Your task to perform on an android device: open app "Firefox Browser" (install if not already installed) Image 0: 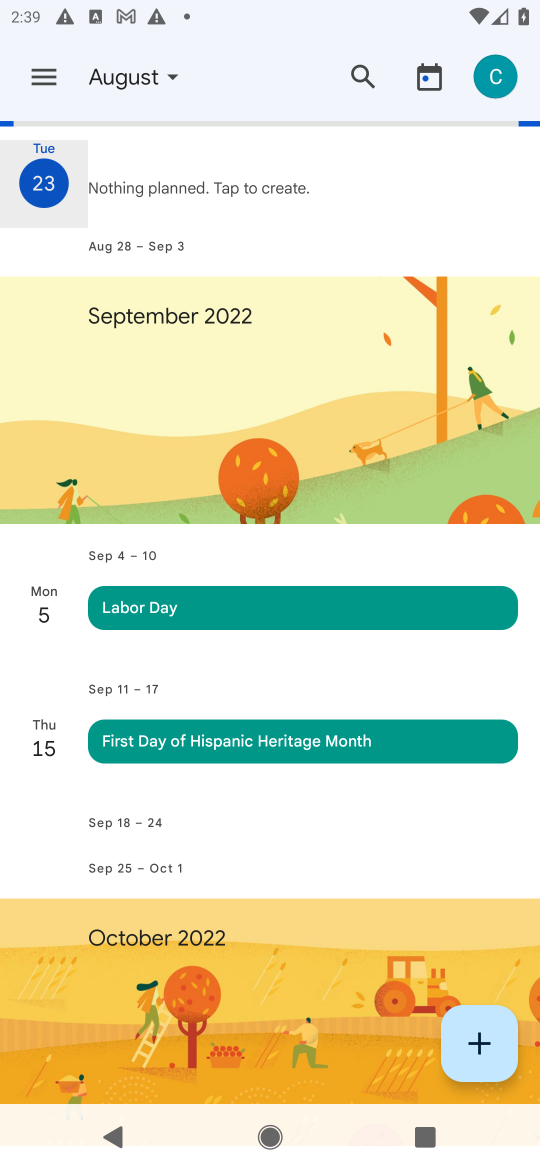
Step 0: press home button
Your task to perform on an android device: open app "Firefox Browser" (install if not already installed) Image 1: 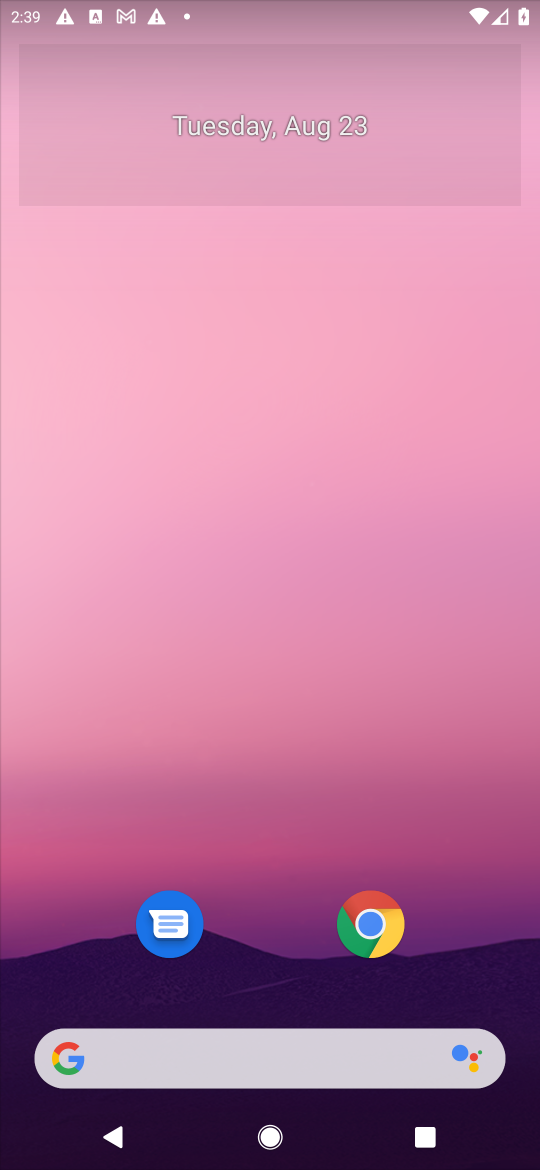
Step 1: drag from (469, 888) to (385, 119)
Your task to perform on an android device: open app "Firefox Browser" (install if not already installed) Image 2: 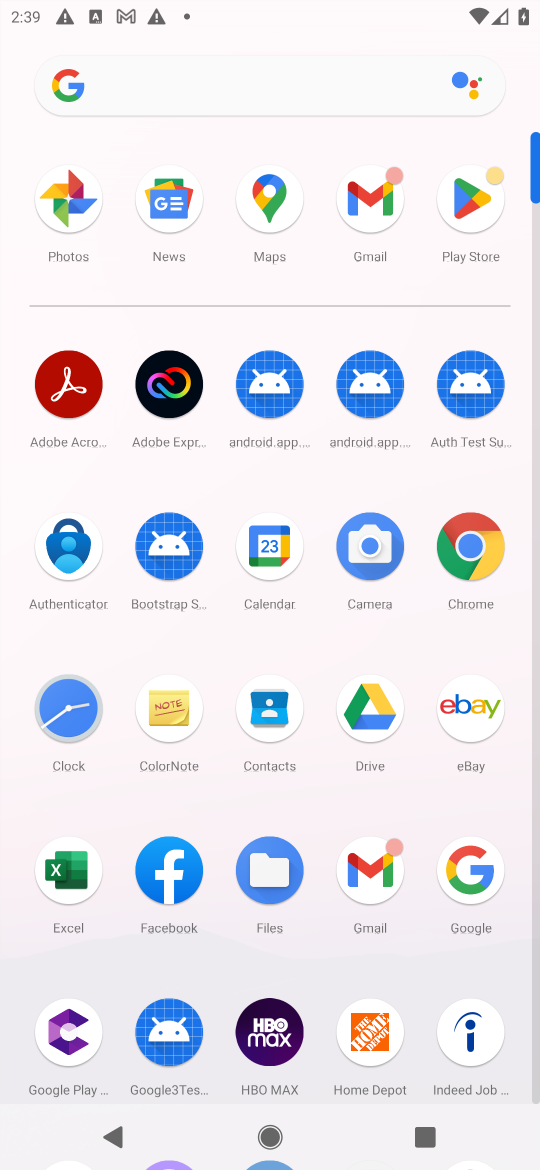
Step 2: click (472, 192)
Your task to perform on an android device: open app "Firefox Browser" (install if not already installed) Image 3: 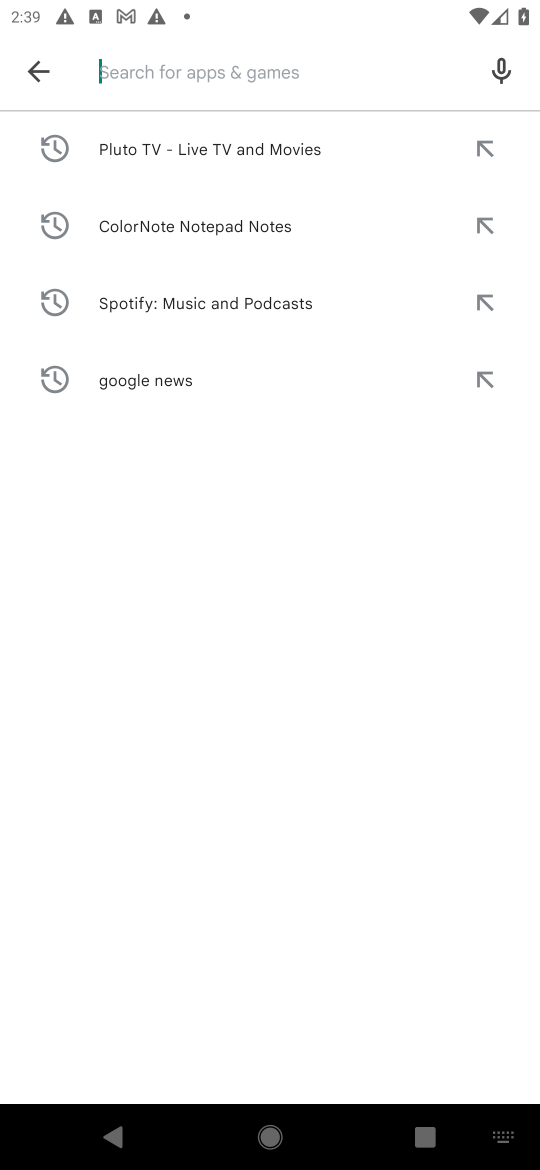
Step 3: type "Firefox Browser"
Your task to perform on an android device: open app "Firefox Browser" (install if not already installed) Image 4: 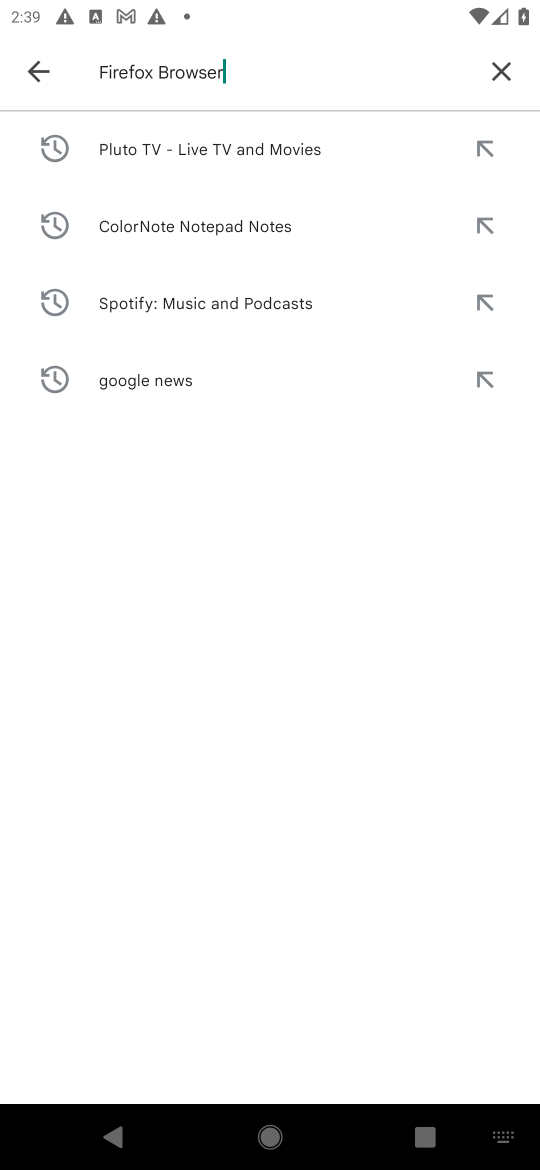
Step 4: press enter
Your task to perform on an android device: open app "Firefox Browser" (install if not already installed) Image 5: 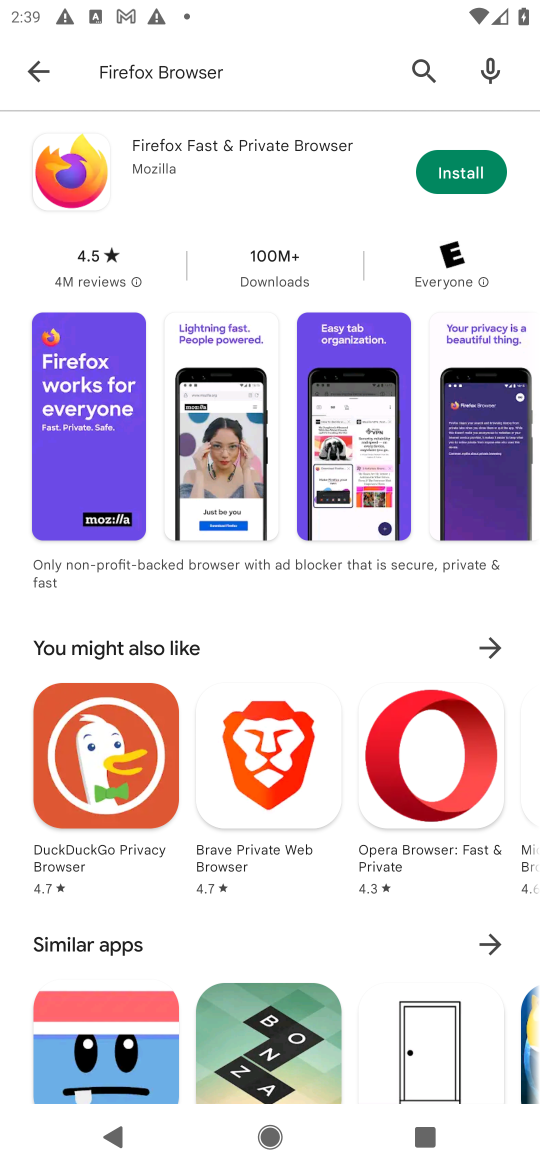
Step 5: click (459, 175)
Your task to perform on an android device: open app "Firefox Browser" (install if not already installed) Image 6: 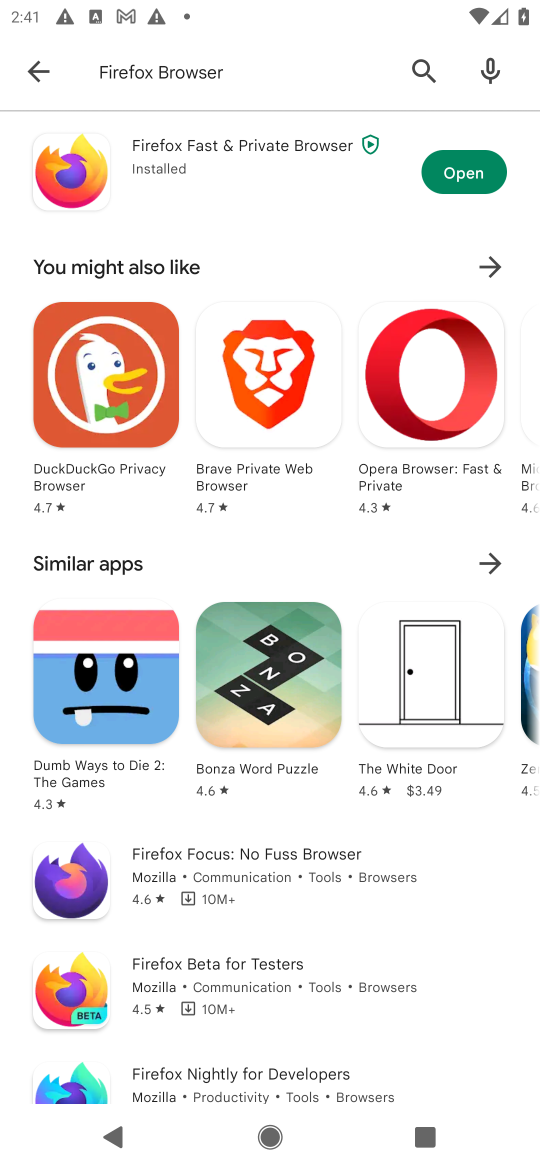
Step 6: click (457, 182)
Your task to perform on an android device: open app "Firefox Browser" (install if not already installed) Image 7: 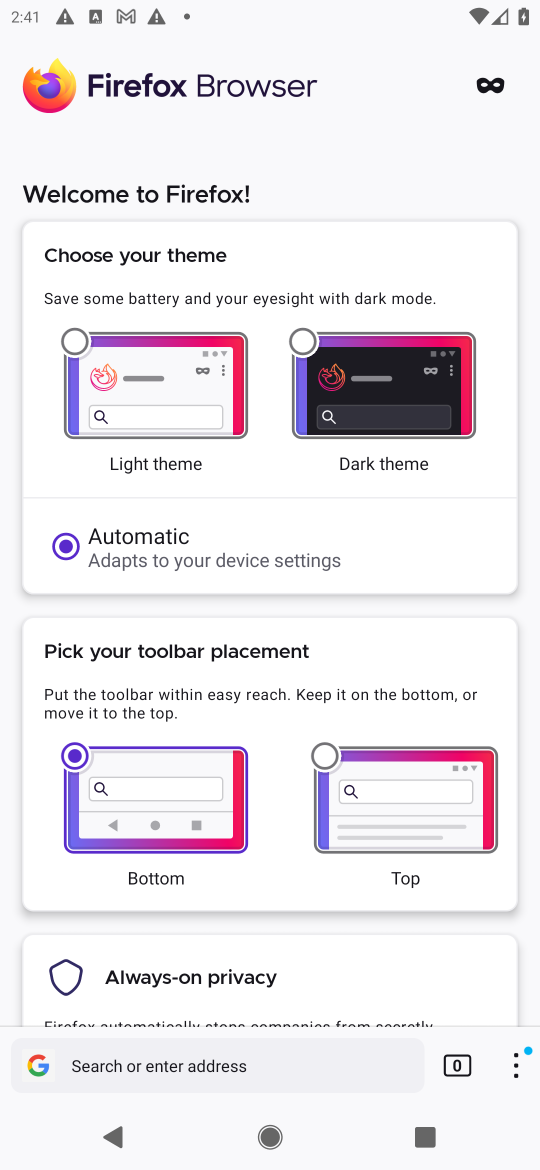
Step 7: task complete